Your task to perform on an android device: star an email in the gmail app Image 0: 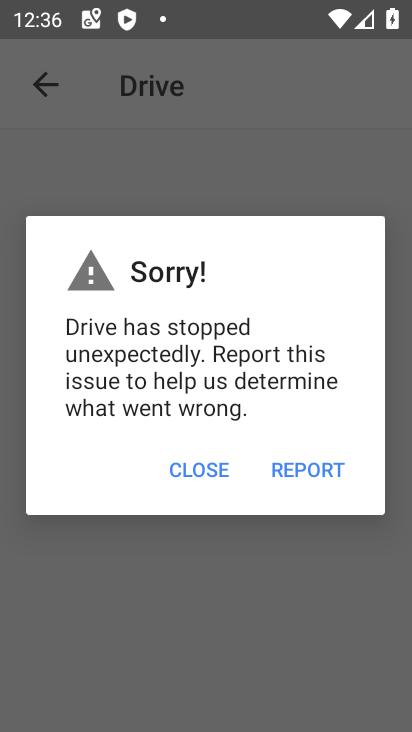
Step 0: press home button
Your task to perform on an android device: star an email in the gmail app Image 1: 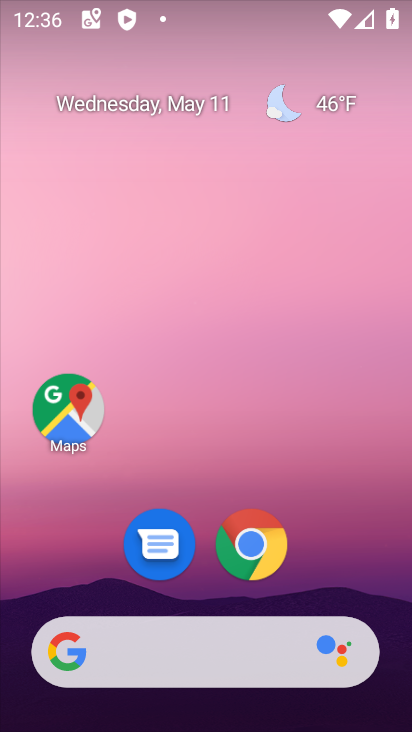
Step 1: drag from (381, 606) to (309, 66)
Your task to perform on an android device: star an email in the gmail app Image 2: 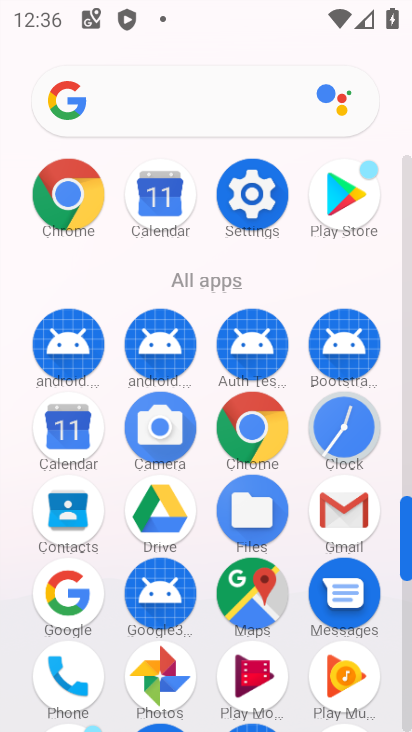
Step 2: click (341, 503)
Your task to perform on an android device: star an email in the gmail app Image 3: 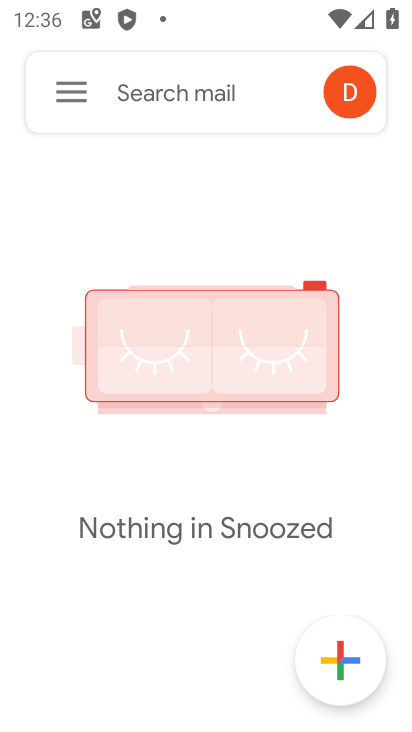
Step 3: click (67, 90)
Your task to perform on an android device: star an email in the gmail app Image 4: 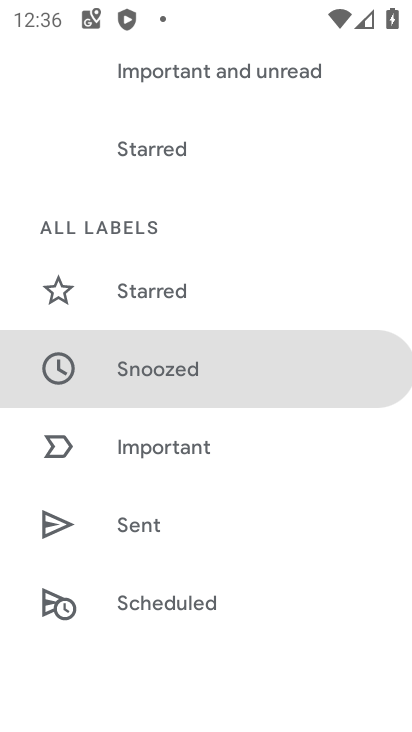
Step 4: drag from (207, 618) to (231, 285)
Your task to perform on an android device: star an email in the gmail app Image 5: 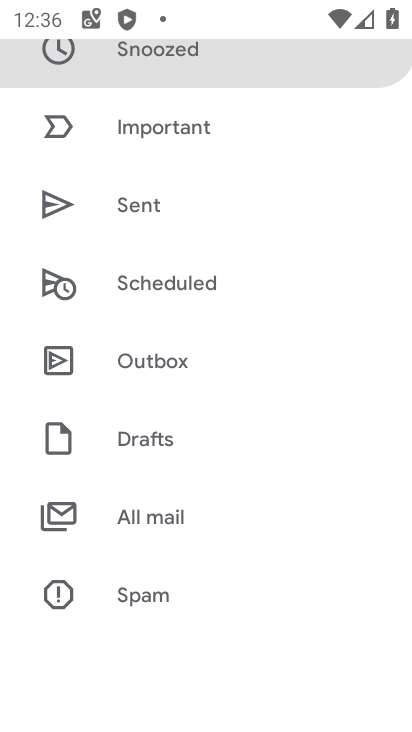
Step 5: click (138, 518)
Your task to perform on an android device: star an email in the gmail app Image 6: 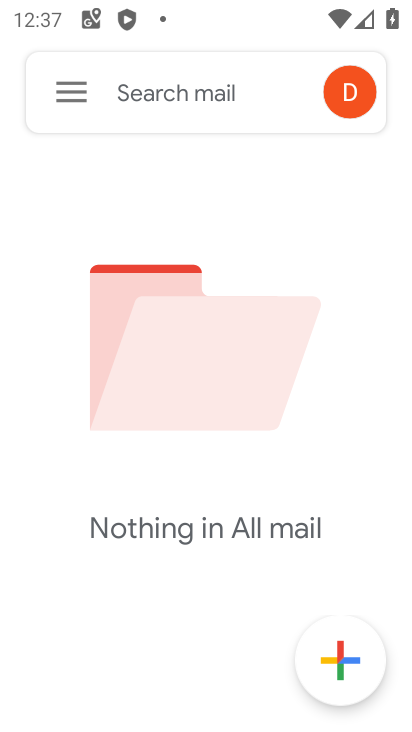
Step 6: task complete